Your task to perform on an android device: uninstall "Google Chrome" Image 0: 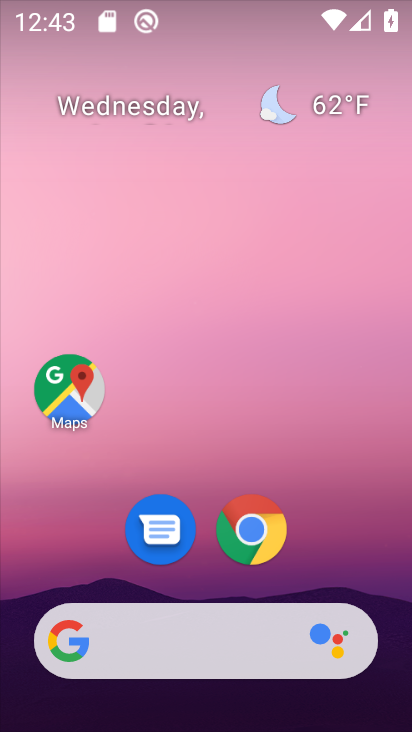
Step 0: drag from (195, 587) to (210, 166)
Your task to perform on an android device: uninstall "Google Chrome" Image 1: 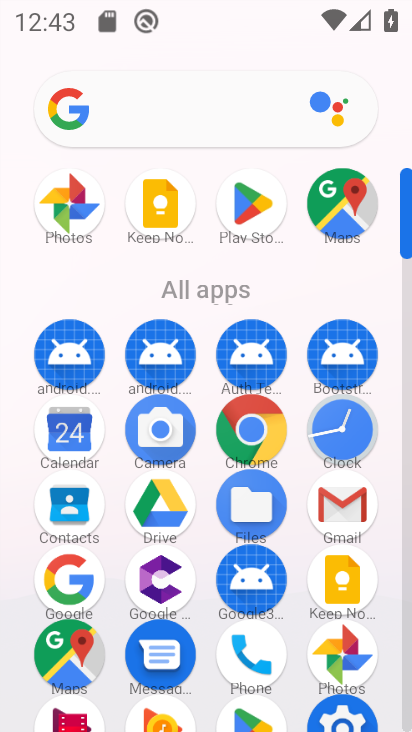
Step 1: click (256, 220)
Your task to perform on an android device: uninstall "Google Chrome" Image 2: 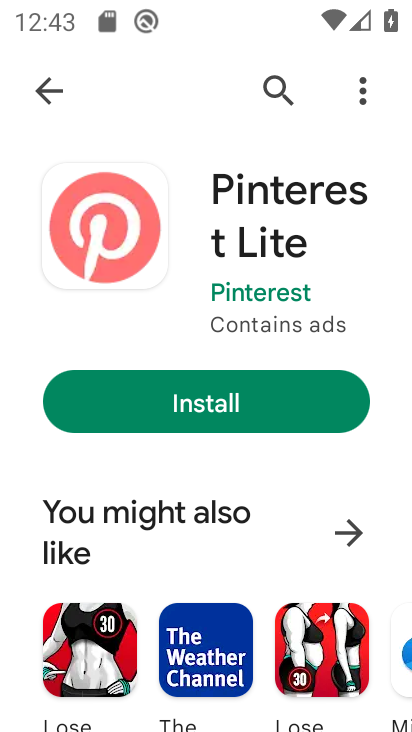
Step 2: click (30, 80)
Your task to perform on an android device: uninstall "Google Chrome" Image 3: 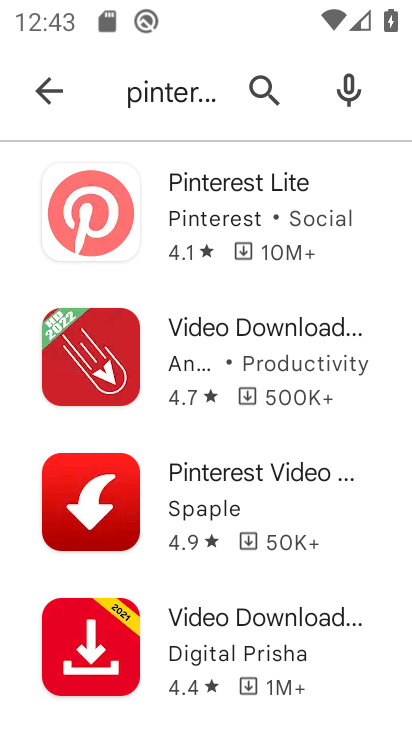
Step 3: click (245, 92)
Your task to perform on an android device: uninstall "Google Chrome" Image 4: 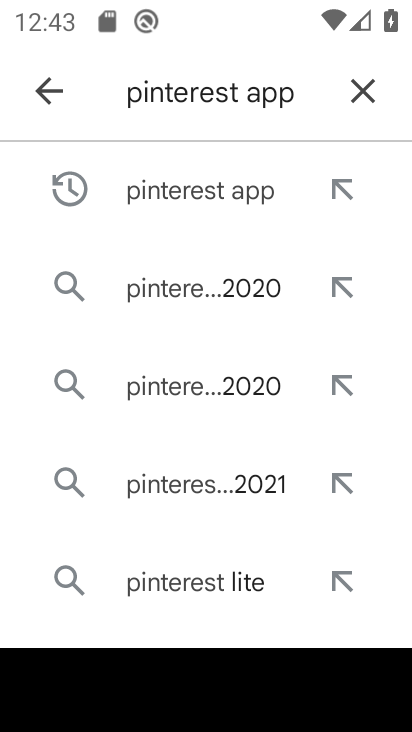
Step 4: click (373, 82)
Your task to perform on an android device: uninstall "Google Chrome" Image 5: 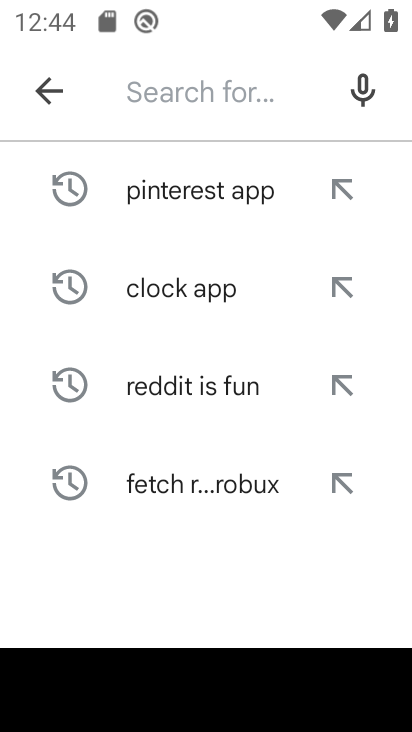
Step 5: click (216, 71)
Your task to perform on an android device: uninstall "Google Chrome" Image 6: 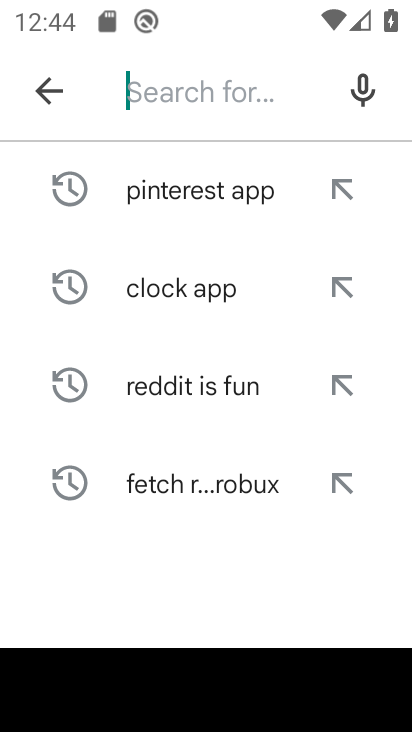
Step 6: type "Google Chrome "
Your task to perform on an android device: uninstall "Google Chrome" Image 7: 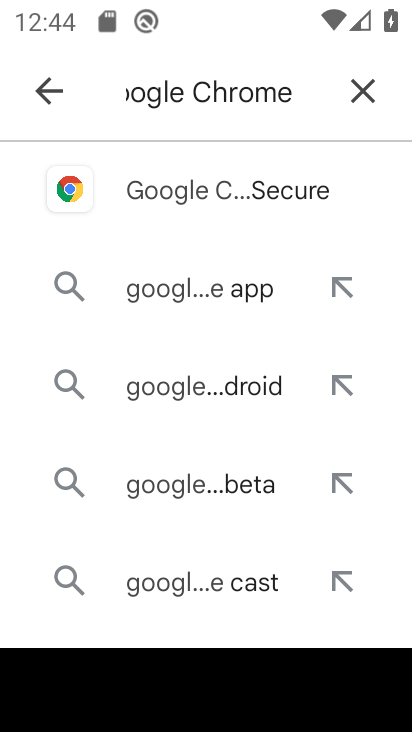
Step 7: click (242, 208)
Your task to perform on an android device: uninstall "Google Chrome" Image 8: 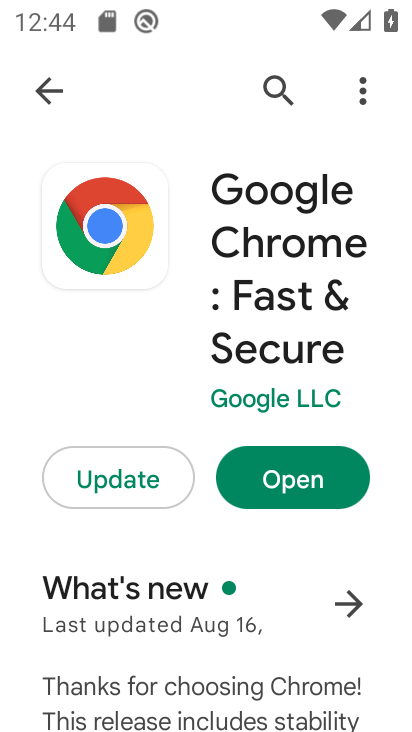
Step 8: click (121, 458)
Your task to perform on an android device: uninstall "Google Chrome" Image 9: 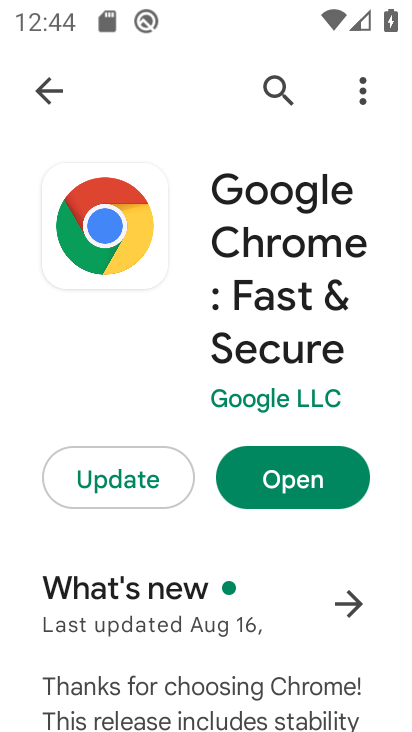
Step 9: click (129, 479)
Your task to perform on an android device: uninstall "Google Chrome" Image 10: 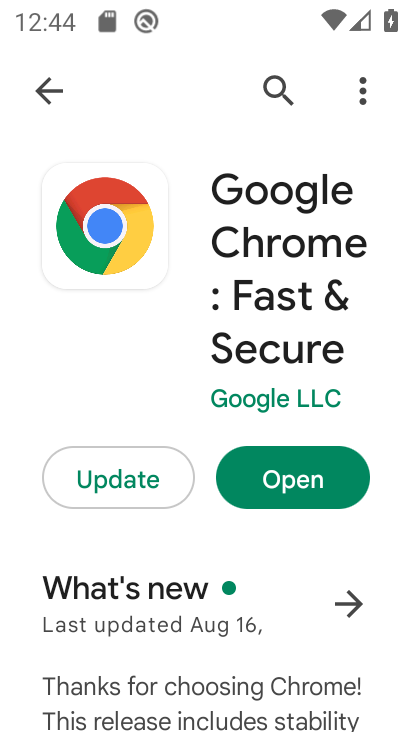
Step 10: click (357, 85)
Your task to perform on an android device: uninstall "Google Chrome" Image 11: 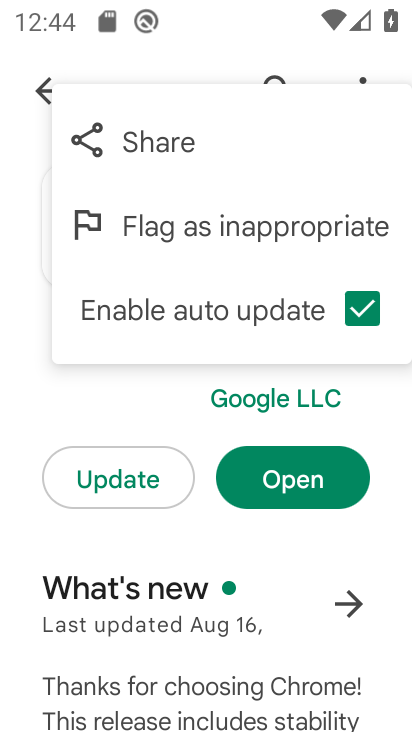
Step 11: click (43, 408)
Your task to perform on an android device: uninstall "Google Chrome" Image 12: 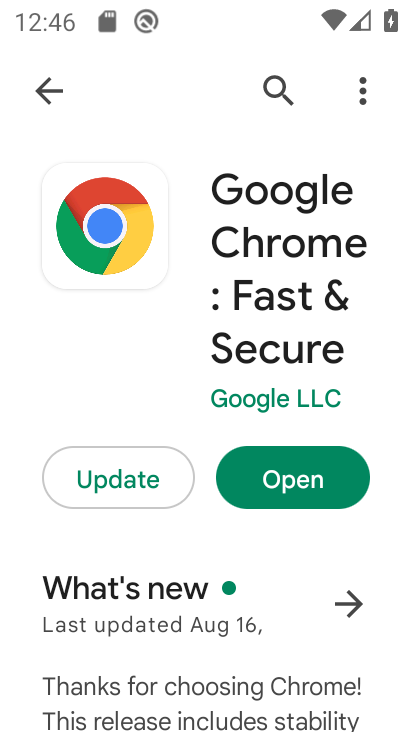
Step 12: task complete